Your task to perform on an android device: turn off smart reply in the gmail app Image 0: 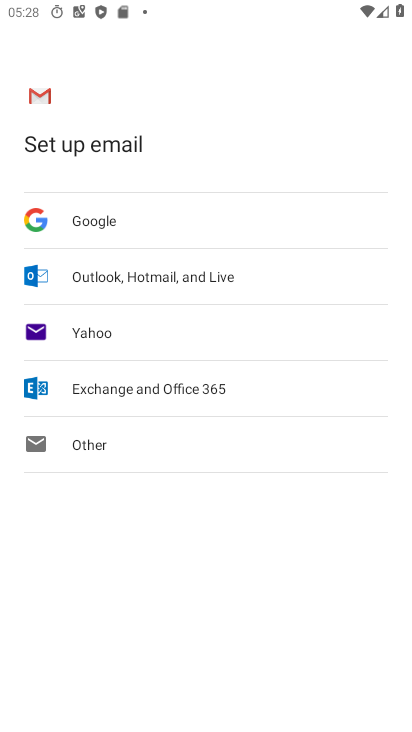
Step 0: drag from (345, 626) to (176, 62)
Your task to perform on an android device: turn off smart reply in the gmail app Image 1: 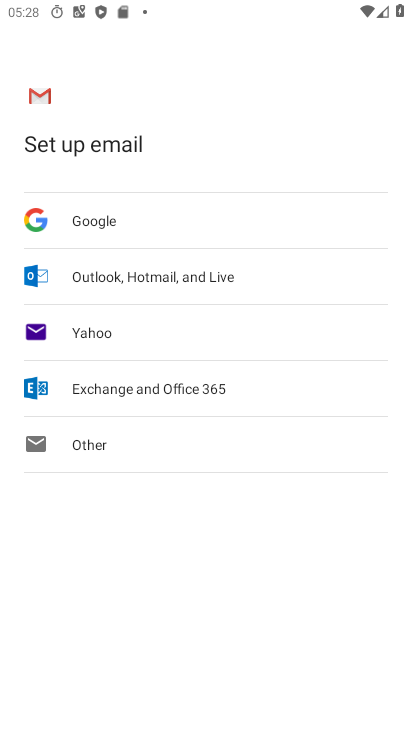
Step 1: press back button
Your task to perform on an android device: turn off smart reply in the gmail app Image 2: 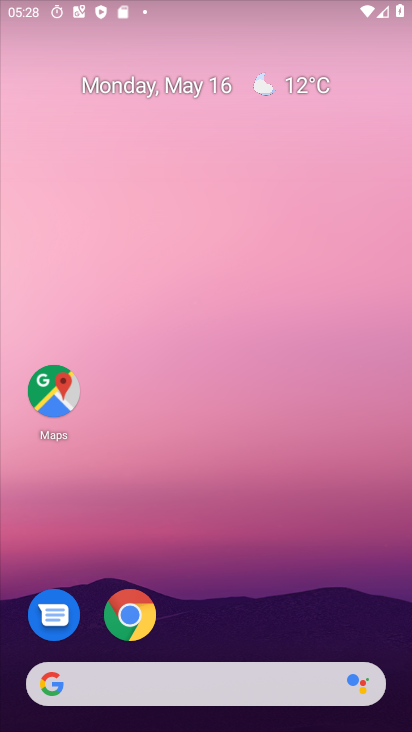
Step 2: drag from (257, 621) to (155, 152)
Your task to perform on an android device: turn off smart reply in the gmail app Image 3: 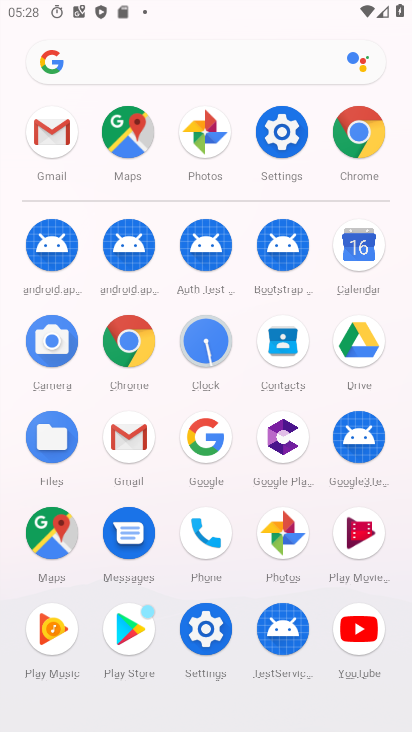
Step 3: click (125, 445)
Your task to perform on an android device: turn off smart reply in the gmail app Image 4: 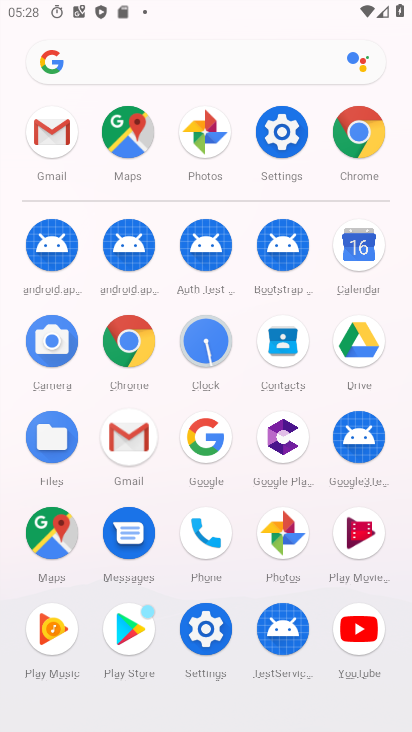
Step 4: click (125, 445)
Your task to perform on an android device: turn off smart reply in the gmail app Image 5: 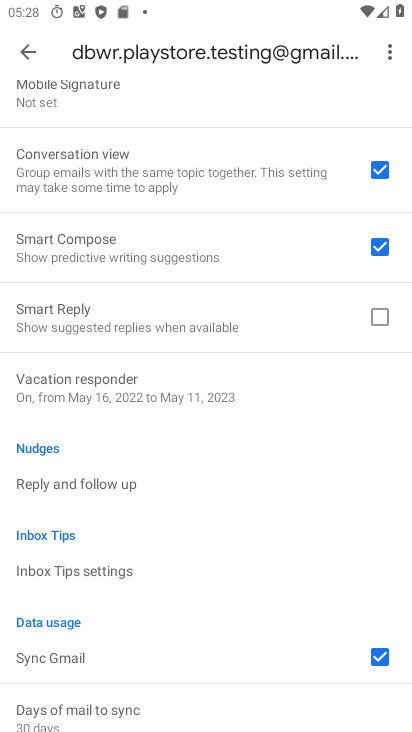
Step 5: click (368, 317)
Your task to perform on an android device: turn off smart reply in the gmail app Image 6: 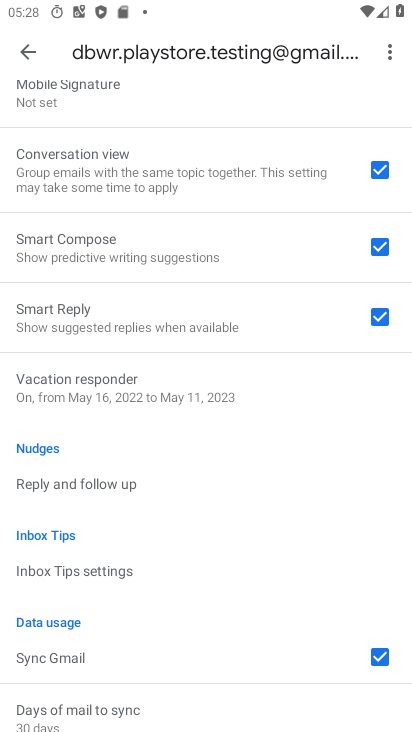
Step 6: task complete